Your task to perform on an android device: toggle airplane mode Image 0: 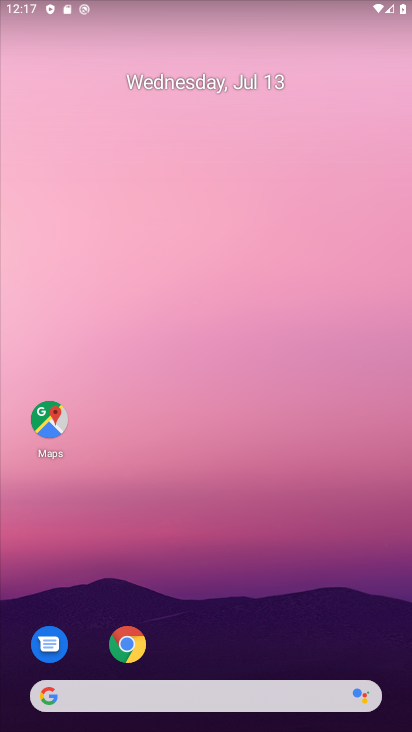
Step 0: drag from (335, 621) to (286, 175)
Your task to perform on an android device: toggle airplane mode Image 1: 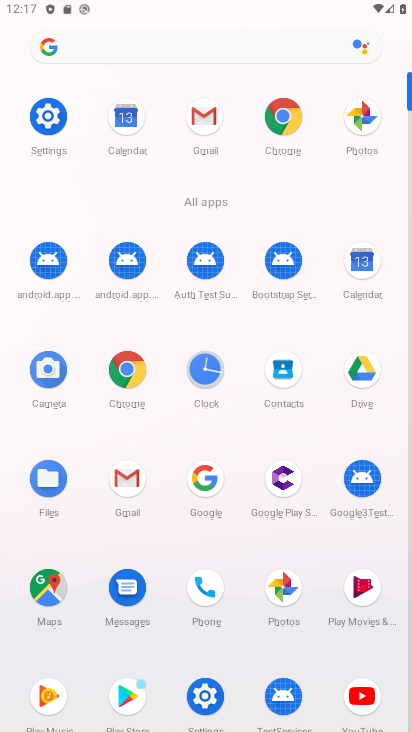
Step 1: click (39, 118)
Your task to perform on an android device: toggle airplane mode Image 2: 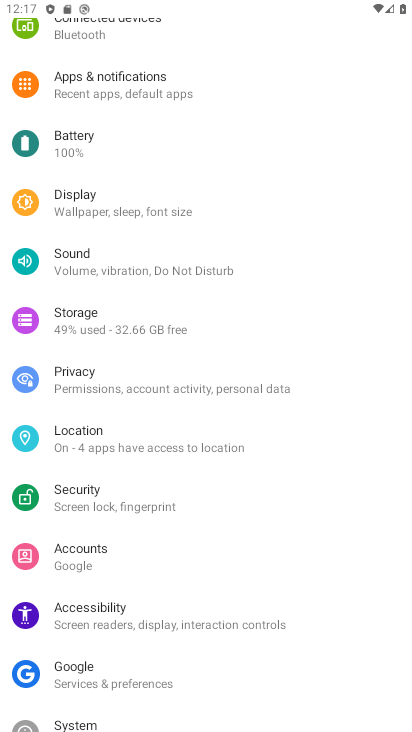
Step 2: drag from (149, 126) to (164, 474)
Your task to perform on an android device: toggle airplane mode Image 3: 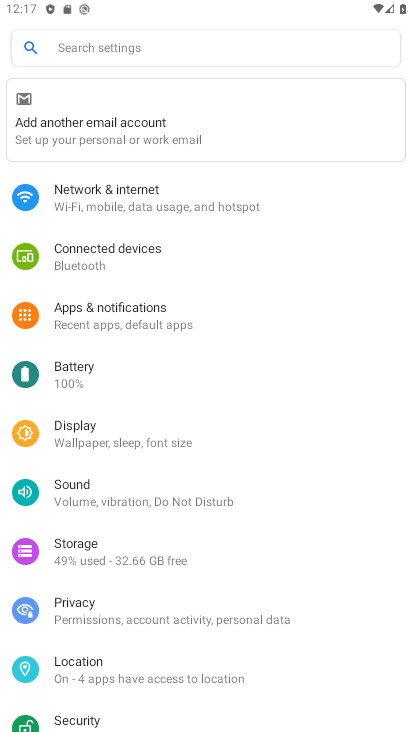
Step 3: click (139, 203)
Your task to perform on an android device: toggle airplane mode Image 4: 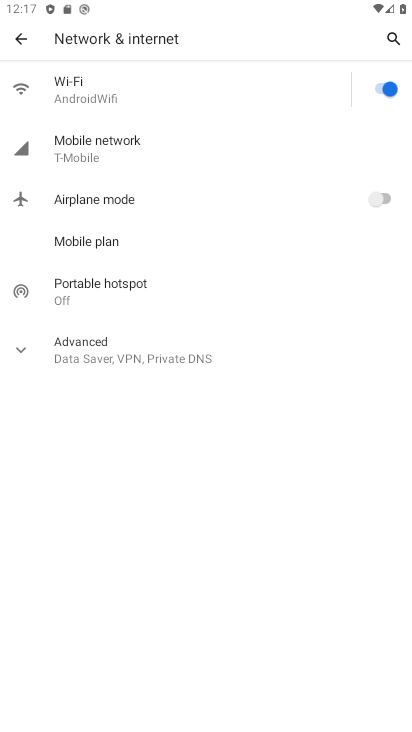
Step 4: click (363, 197)
Your task to perform on an android device: toggle airplane mode Image 5: 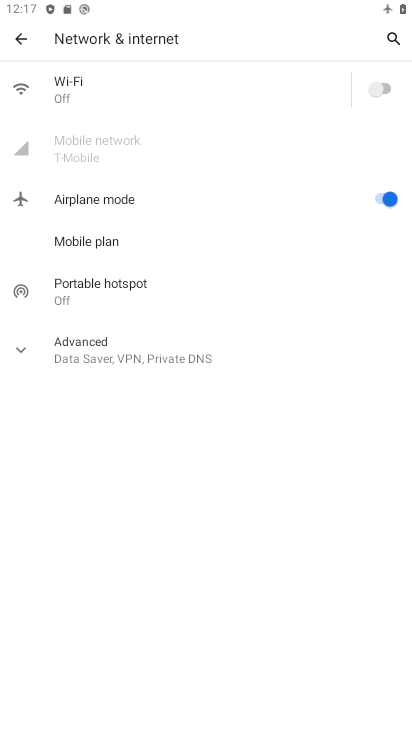
Step 5: task complete